Your task to perform on an android device: Show the shopping cart on bestbuy.com. Add "razer blade" to the cart on bestbuy.com Image 0: 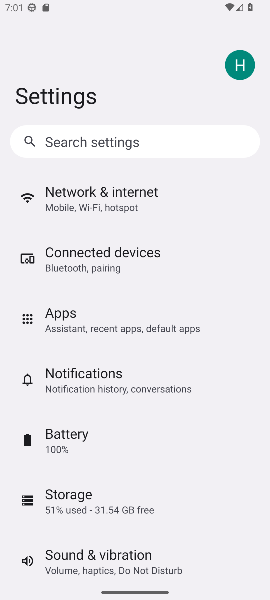
Step 0: press home button
Your task to perform on an android device: Show the shopping cart on bestbuy.com. Add "razer blade" to the cart on bestbuy.com Image 1: 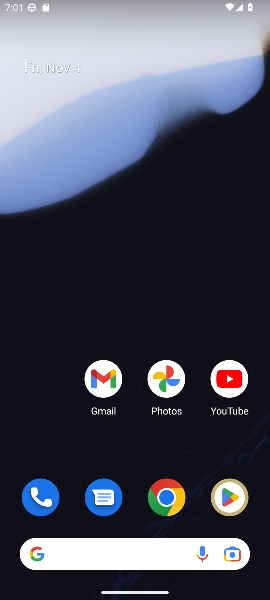
Step 1: click (169, 496)
Your task to perform on an android device: Show the shopping cart on bestbuy.com. Add "razer blade" to the cart on bestbuy.com Image 2: 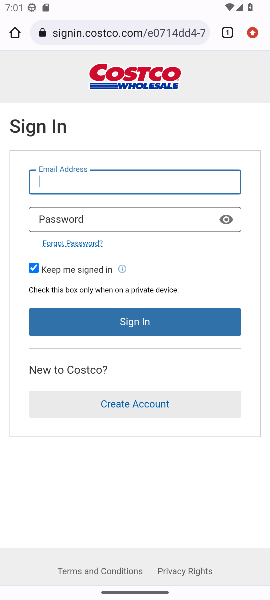
Step 2: click (91, 30)
Your task to perform on an android device: Show the shopping cart on bestbuy.com. Add "razer blade" to the cart on bestbuy.com Image 3: 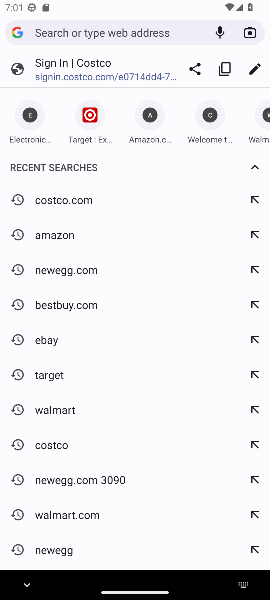
Step 3: click (61, 304)
Your task to perform on an android device: Show the shopping cart on bestbuy.com. Add "razer blade" to the cart on bestbuy.com Image 4: 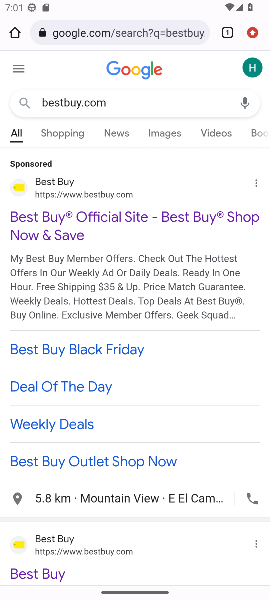
Step 4: click (57, 547)
Your task to perform on an android device: Show the shopping cart on bestbuy.com. Add "razer blade" to the cart on bestbuy.com Image 5: 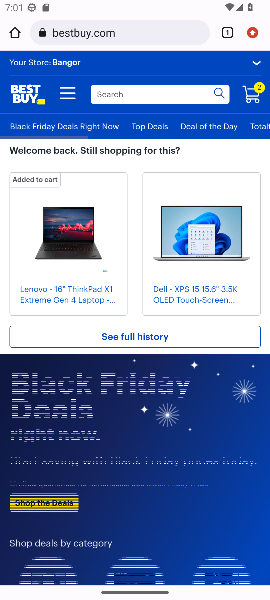
Step 5: click (247, 94)
Your task to perform on an android device: Show the shopping cart on bestbuy.com. Add "razer blade" to the cart on bestbuy.com Image 6: 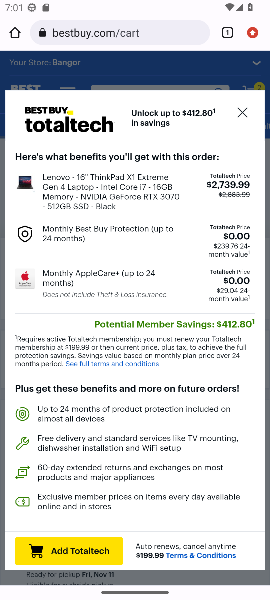
Step 6: click (243, 117)
Your task to perform on an android device: Show the shopping cart on bestbuy.com. Add "razer blade" to the cart on bestbuy.com Image 7: 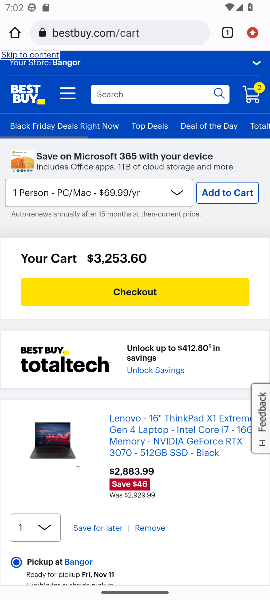
Step 7: click (162, 96)
Your task to perform on an android device: Show the shopping cart on bestbuy.com. Add "razer blade" to the cart on bestbuy.com Image 8: 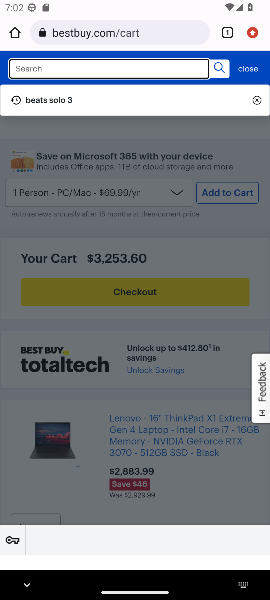
Step 8: type "razer blade"
Your task to perform on an android device: Show the shopping cart on bestbuy.com. Add "razer blade" to the cart on bestbuy.com Image 9: 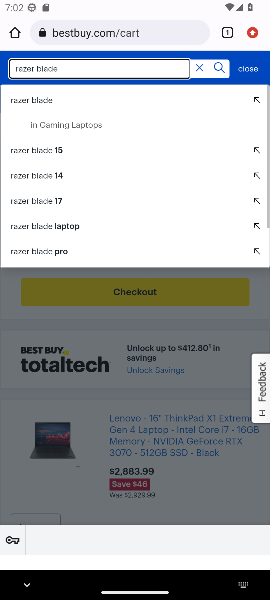
Step 9: click (28, 101)
Your task to perform on an android device: Show the shopping cart on bestbuy.com. Add "razer blade" to the cart on bestbuy.com Image 10: 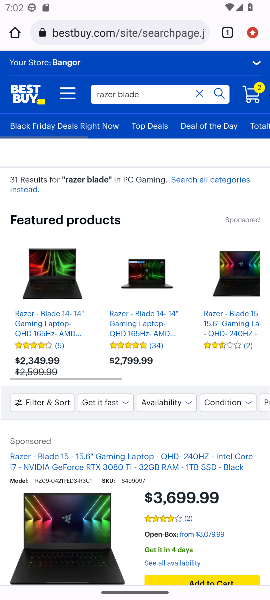
Step 10: click (209, 552)
Your task to perform on an android device: Show the shopping cart on bestbuy.com. Add "razer blade" to the cart on bestbuy.com Image 11: 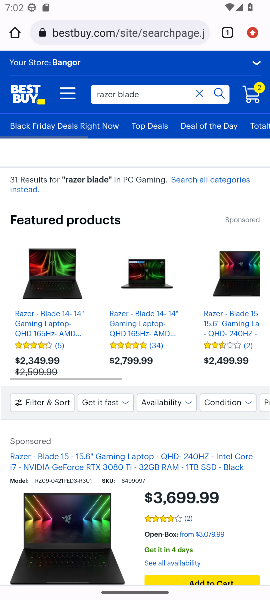
Step 11: drag from (209, 552) to (219, 399)
Your task to perform on an android device: Show the shopping cart on bestbuy.com. Add "razer blade" to the cart on bestbuy.com Image 12: 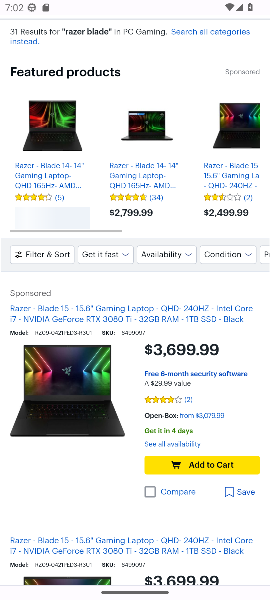
Step 12: click (208, 433)
Your task to perform on an android device: Show the shopping cart on bestbuy.com. Add "razer blade" to the cart on bestbuy.com Image 13: 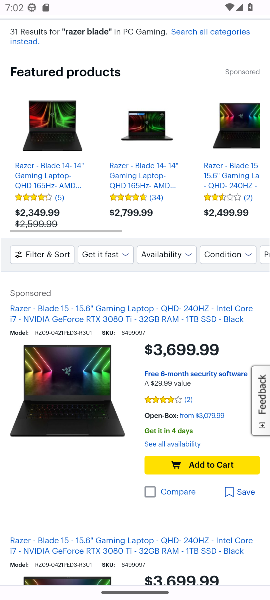
Step 13: click (208, 465)
Your task to perform on an android device: Show the shopping cart on bestbuy.com. Add "razer blade" to the cart on bestbuy.com Image 14: 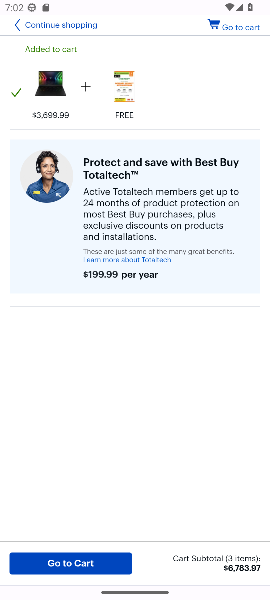
Step 14: task complete